Your task to perform on an android device: toggle data saver in the chrome app Image 0: 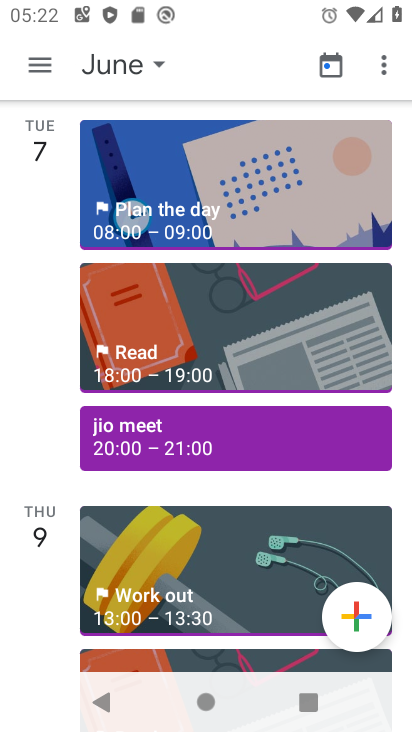
Step 0: press home button
Your task to perform on an android device: toggle data saver in the chrome app Image 1: 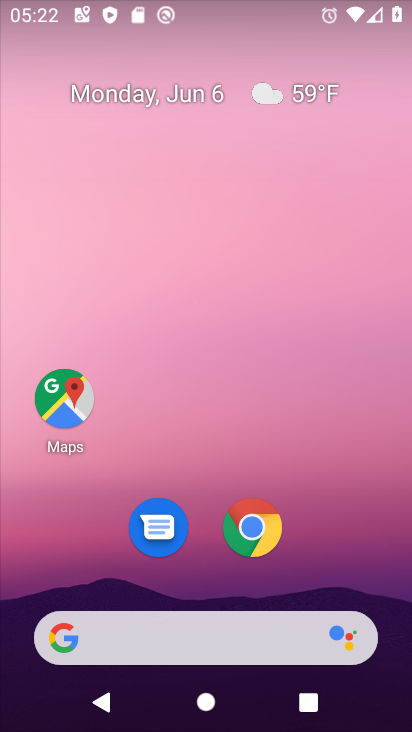
Step 1: click (247, 522)
Your task to perform on an android device: toggle data saver in the chrome app Image 2: 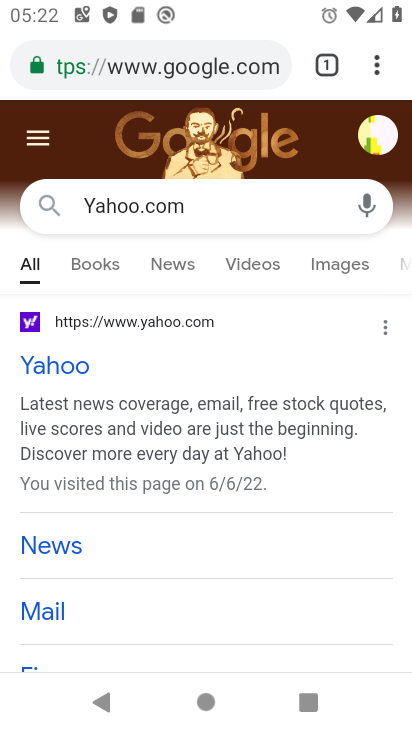
Step 2: click (373, 60)
Your task to perform on an android device: toggle data saver in the chrome app Image 3: 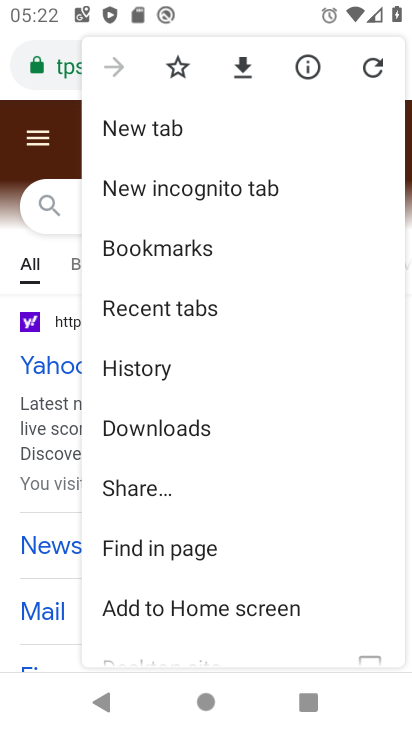
Step 3: drag from (297, 629) to (347, 153)
Your task to perform on an android device: toggle data saver in the chrome app Image 4: 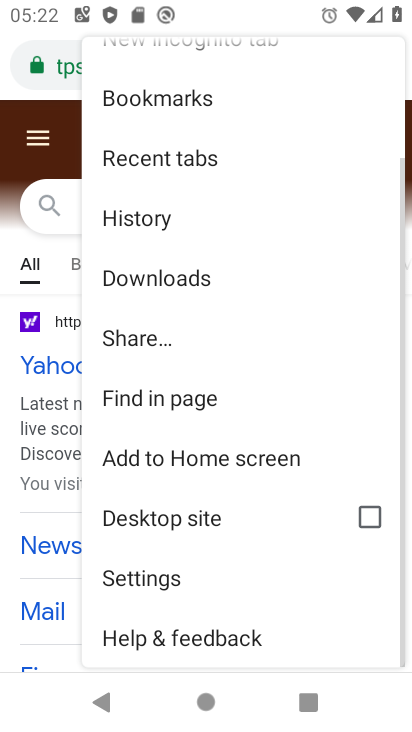
Step 4: click (158, 581)
Your task to perform on an android device: toggle data saver in the chrome app Image 5: 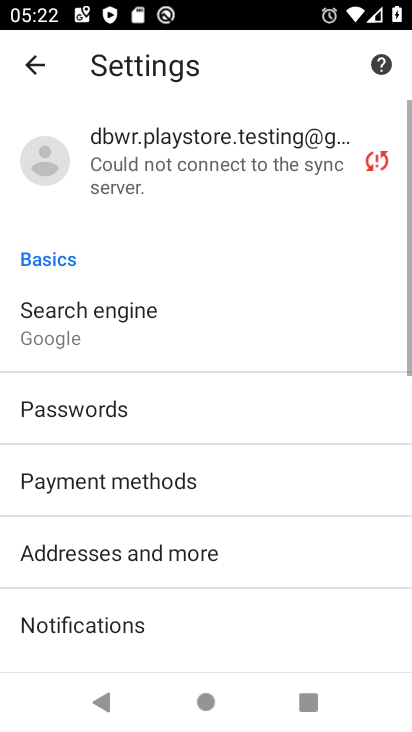
Step 5: drag from (252, 630) to (241, 131)
Your task to perform on an android device: toggle data saver in the chrome app Image 6: 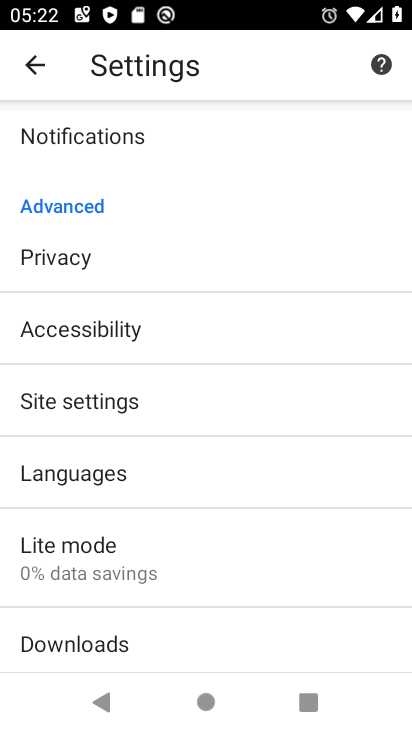
Step 6: drag from (237, 590) to (240, 194)
Your task to perform on an android device: toggle data saver in the chrome app Image 7: 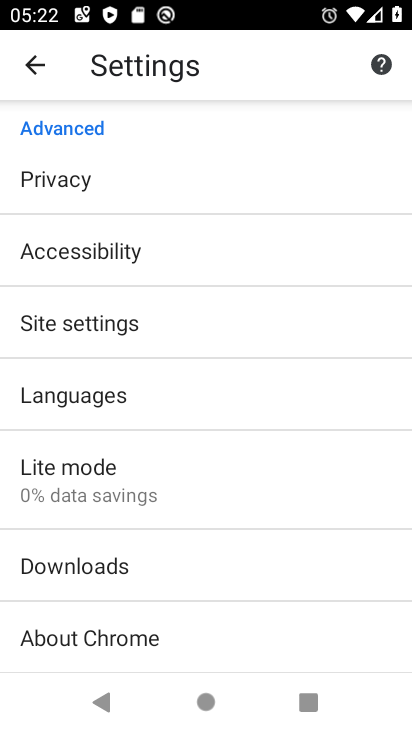
Step 7: click (68, 472)
Your task to perform on an android device: toggle data saver in the chrome app Image 8: 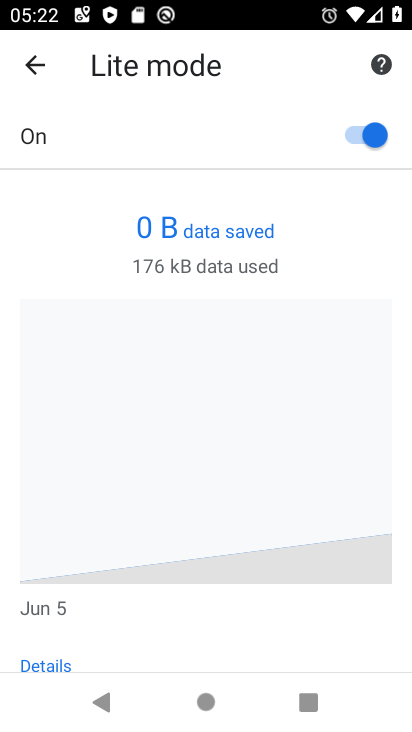
Step 8: click (353, 135)
Your task to perform on an android device: toggle data saver in the chrome app Image 9: 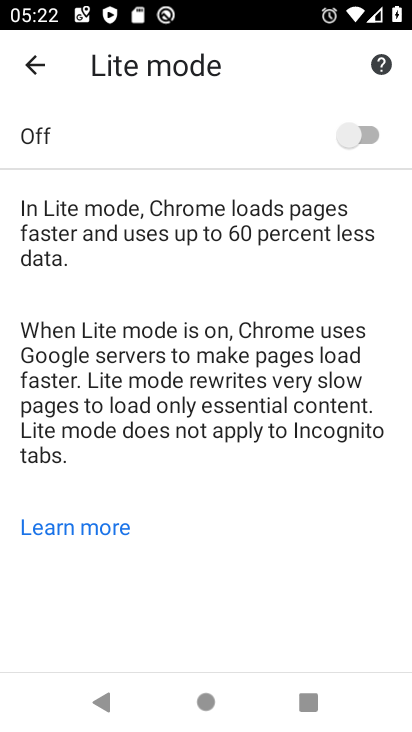
Step 9: task complete